Your task to perform on an android device: Open sound settings Image 0: 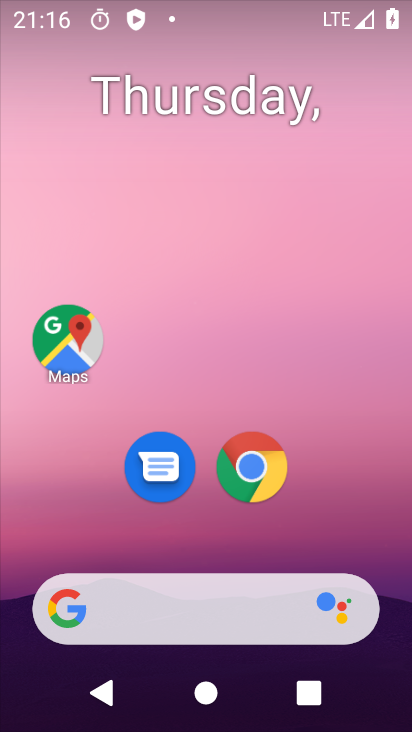
Step 0: drag from (362, 519) to (285, 132)
Your task to perform on an android device: Open sound settings Image 1: 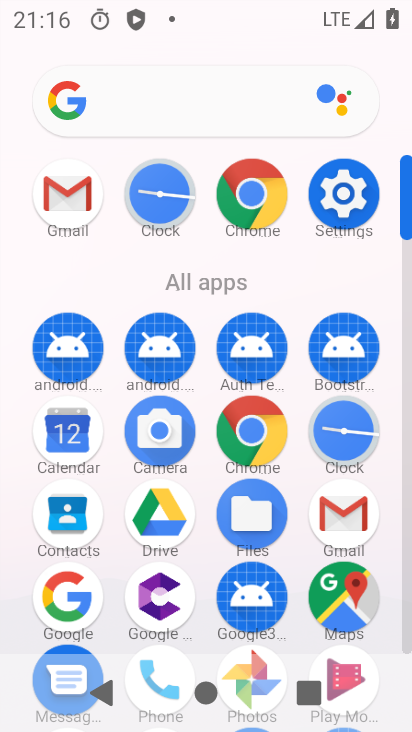
Step 1: click (342, 197)
Your task to perform on an android device: Open sound settings Image 2: 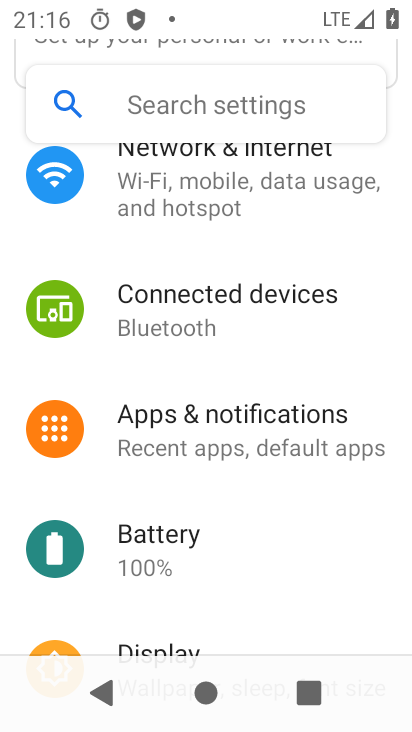
Step 2: drag from (265, 445) to (284, 128)
Your task to perform on an android device: Open sound settings Image 3: 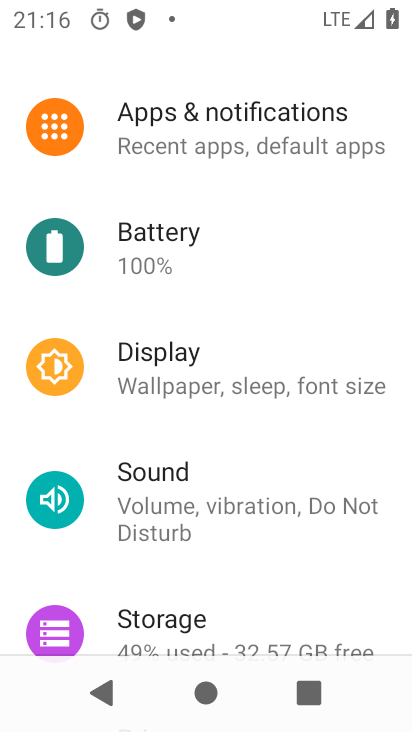
Step 3: click (198, 487)
Your task to perform on an android device: Open sound settings Image 4: 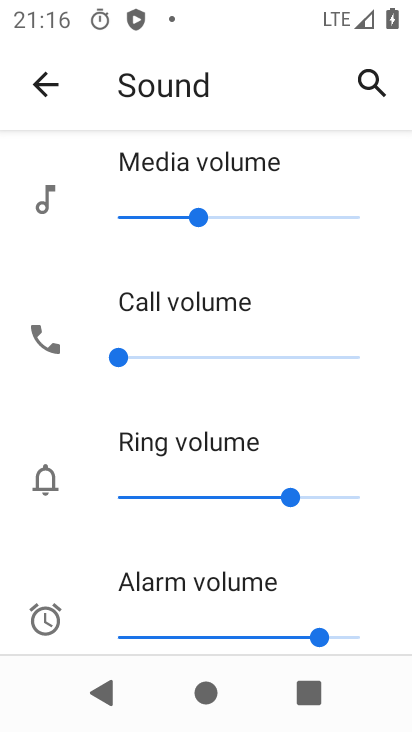
Step 4: task complete